Your task to perform on an android device: See recent photos Image 0: 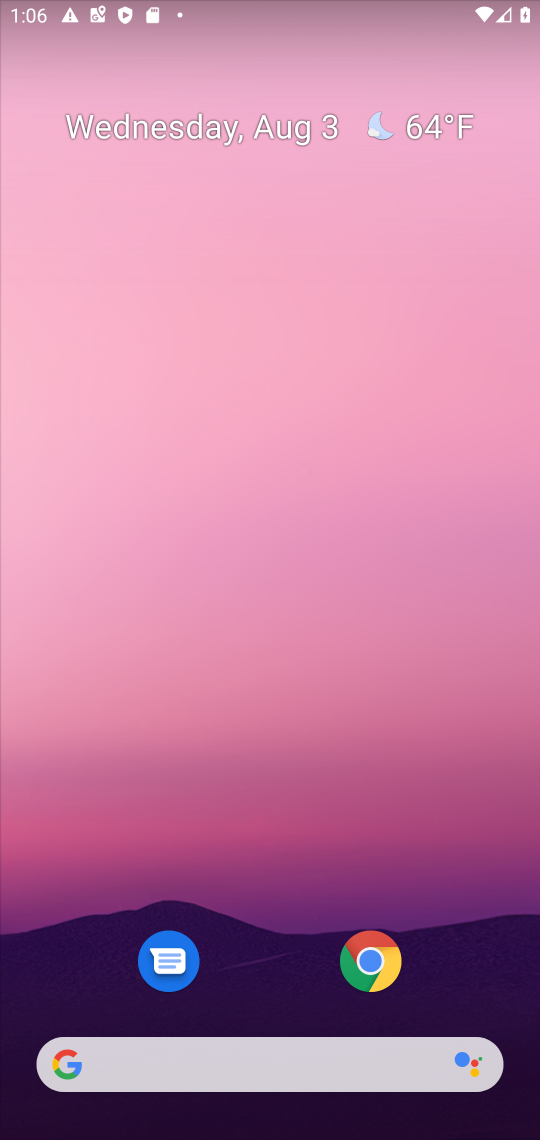
Step 0: drag from (269, 828) to (297, 2)
Your task to perform on an android device: See recent photos Image 1: 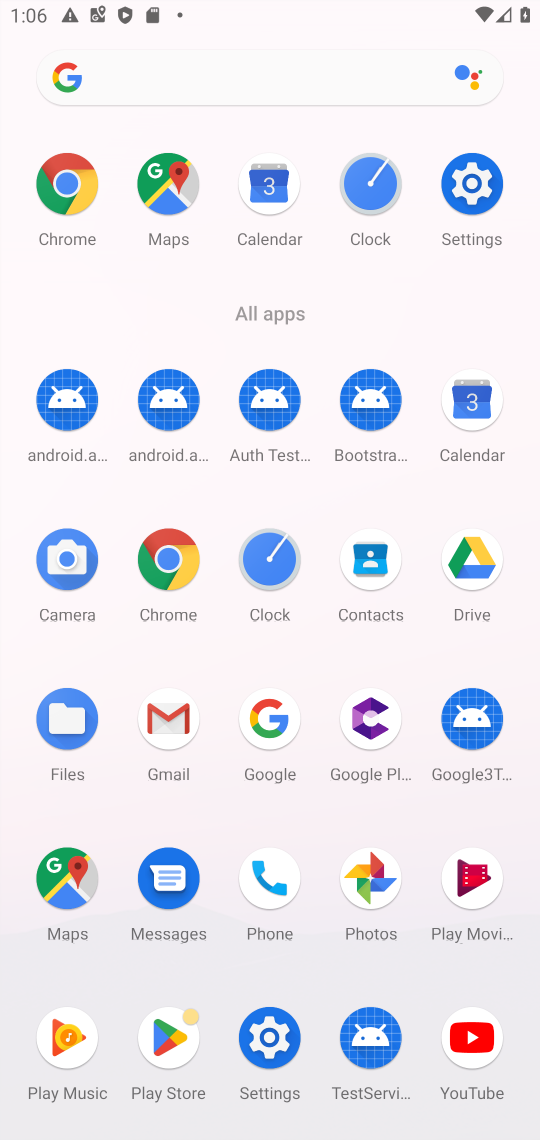
Step 1: click (375, 891)
Your task to perform on an android device: See recent photos Image 2: 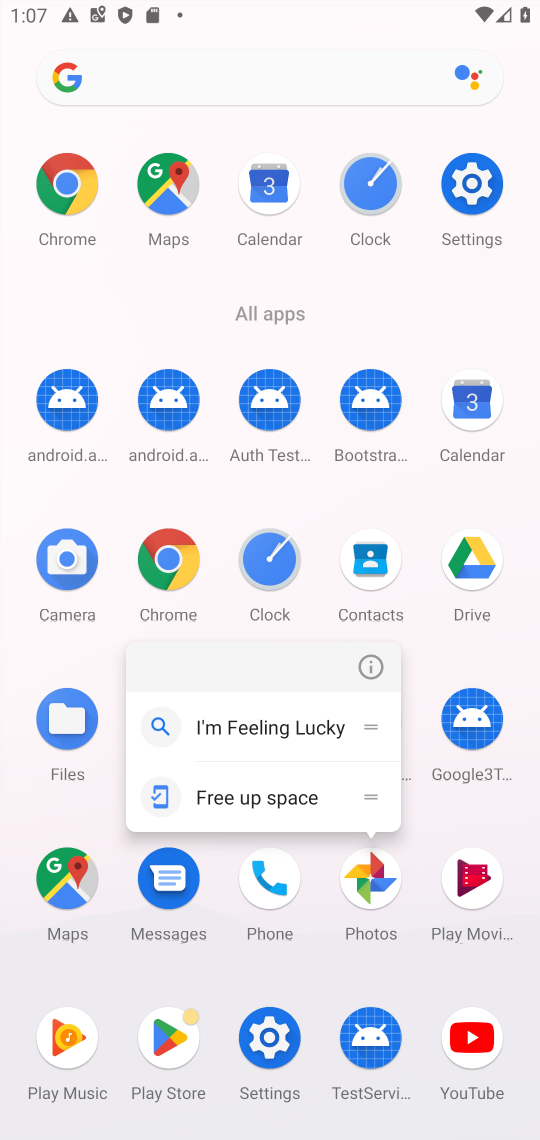
Step 2: click (375, 891)
Your task to perform on an android device: See recent photos Image 3: 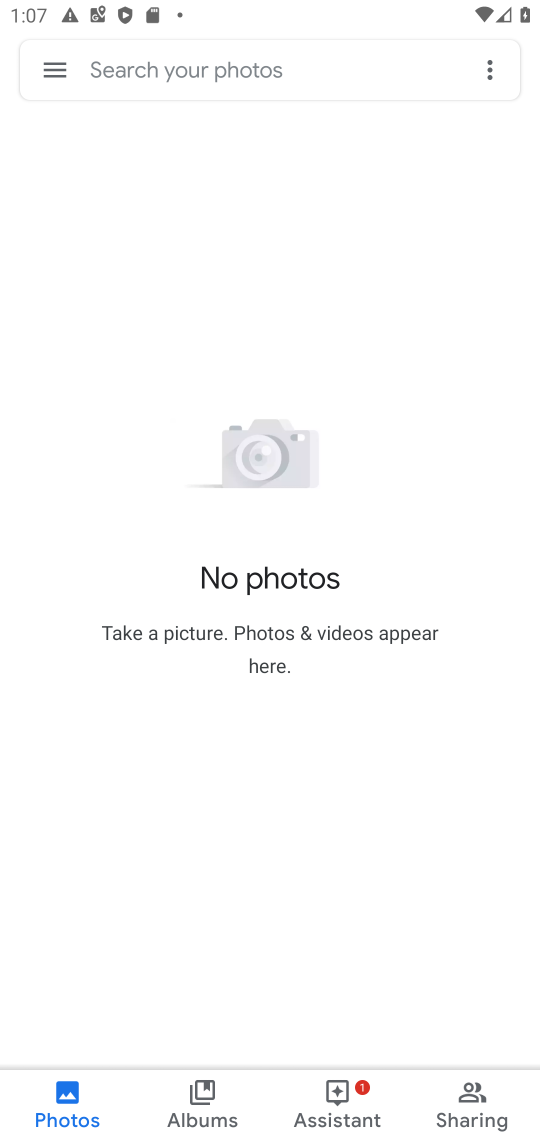
Step 3: task complete